Your task to perform on an android device: Open Youtube and go to the subscriptions tab Image 0: 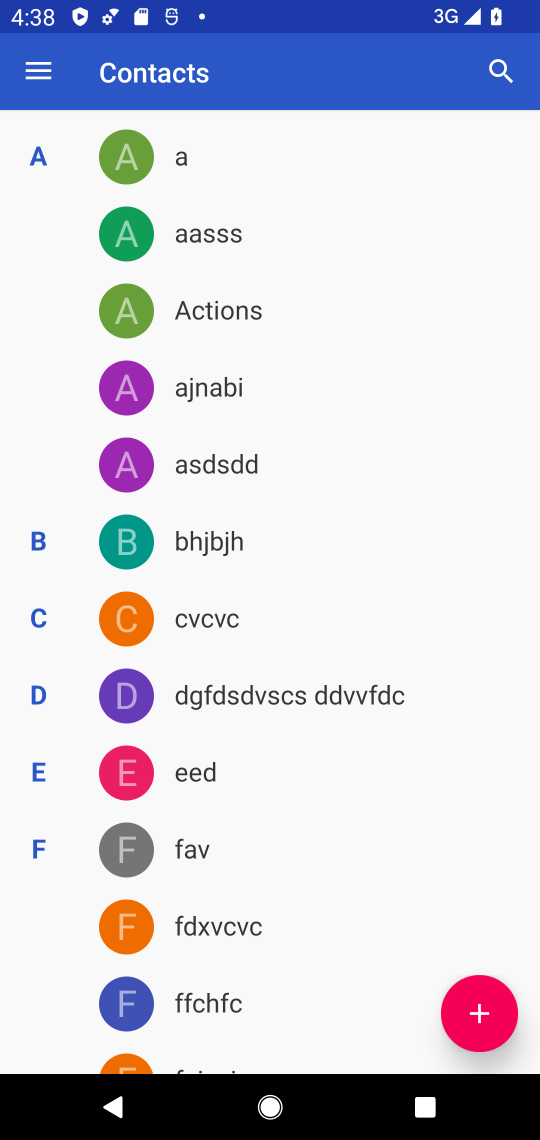
Step 0: press home button
Your task to perform on an android device: Open Youtube and go to the subscriptions tab Image 1: 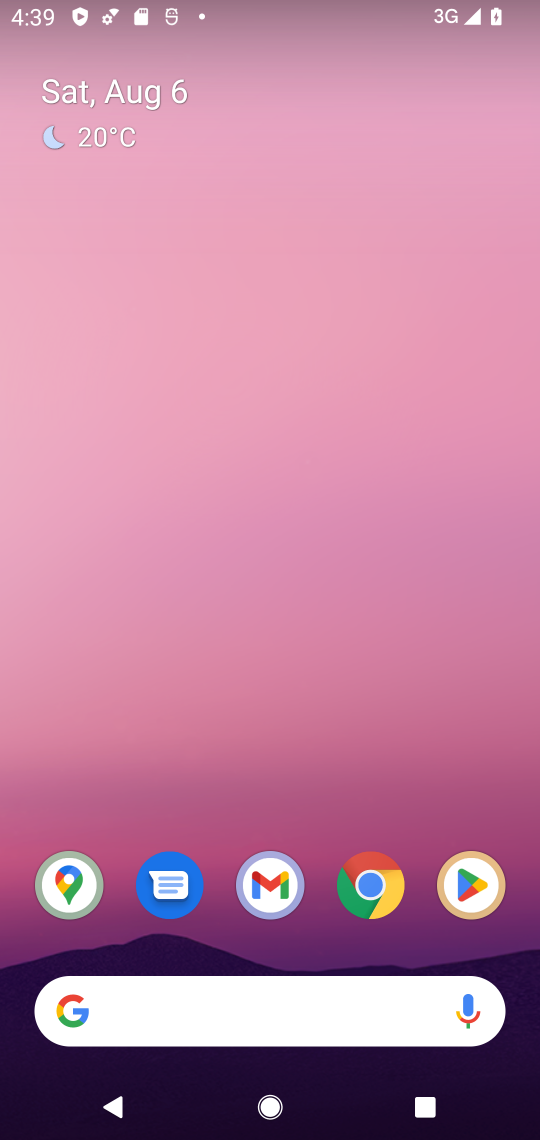
Step 1: drag from (448, 825) to (342, 12)
Your task to perform on an android device: Open Youtube and go to the subscriptions tab Image 2: 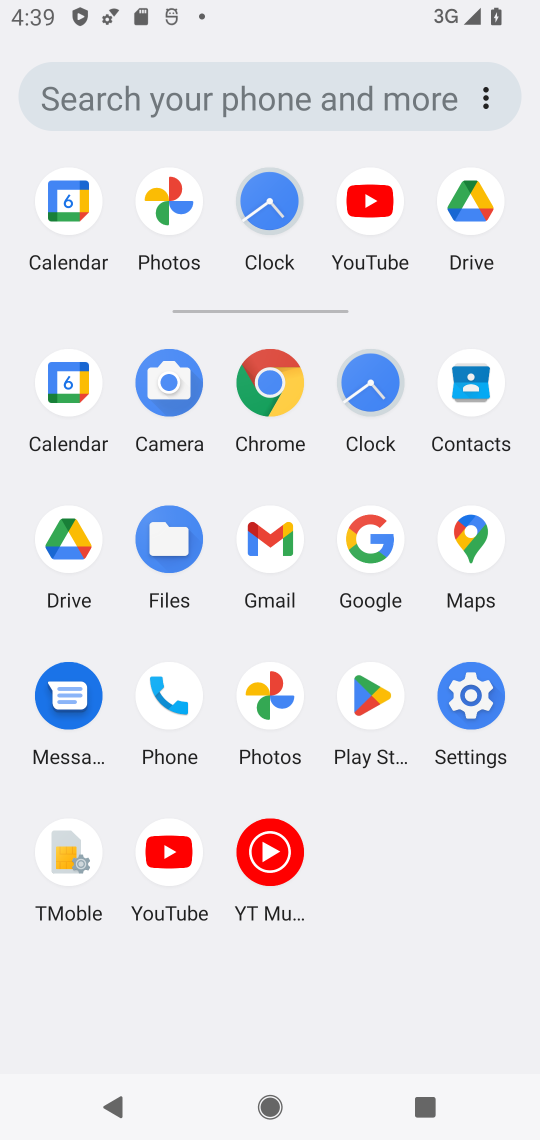
Step 2: click (162, 881)
Your task to perform on an android device: Open Youtube and go to the subscriptions tab Image 3: 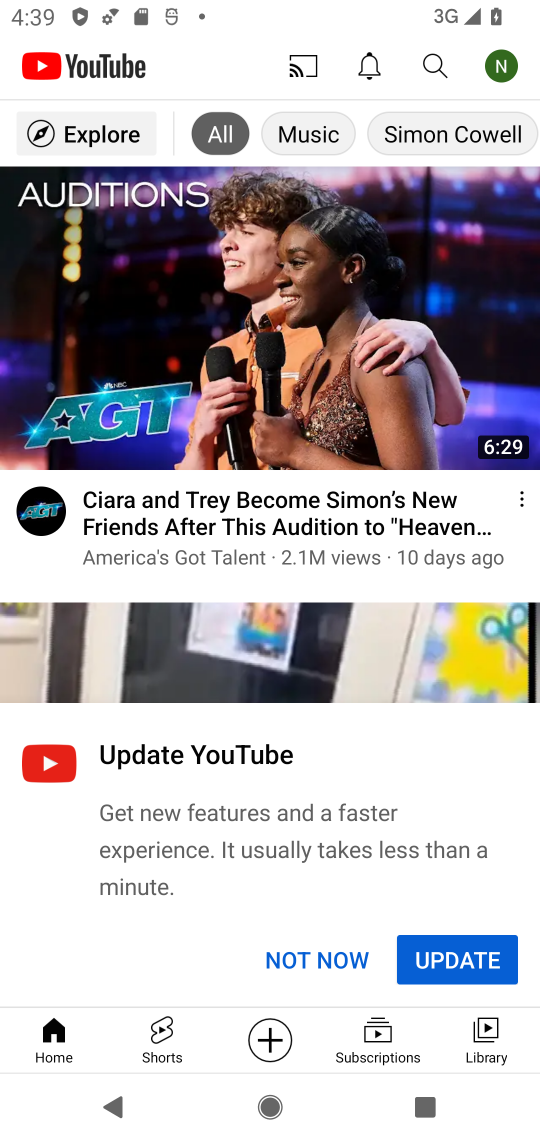
Step 3: click (372, 1048)
Your task to perform on an android device: Open Youtube and go to the subscriptions tab Image 4: 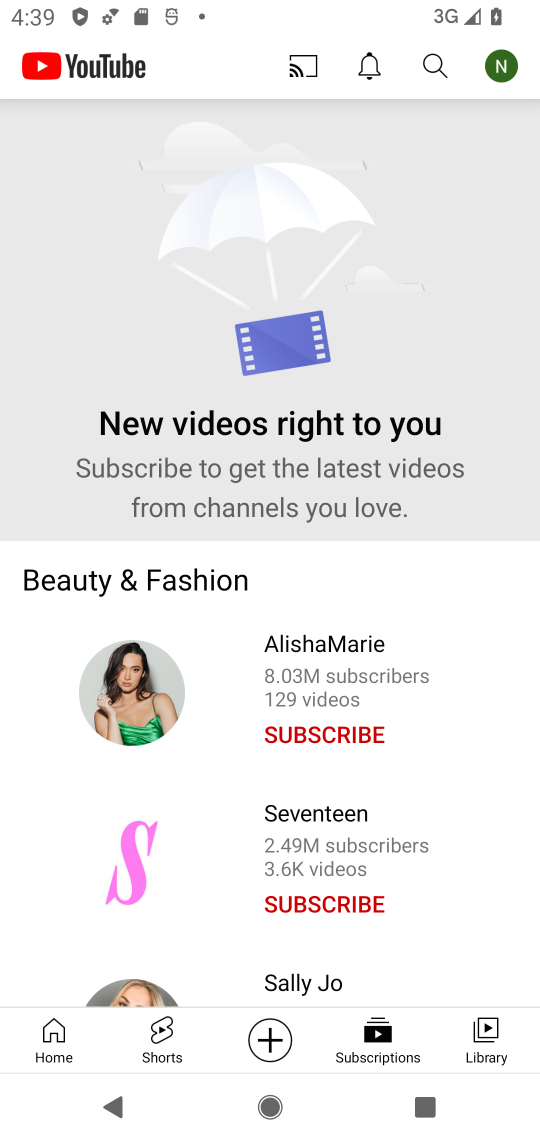
Step 4: task complete